Your task to perform on an android device: Find coffee shops on Maps Image 0: 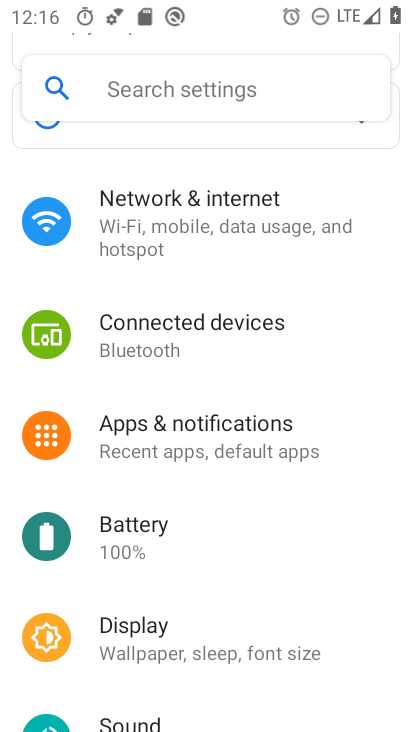
Step 0: press home button
Your task to perform on an android device: Find coffee shops on Maps Image 1: 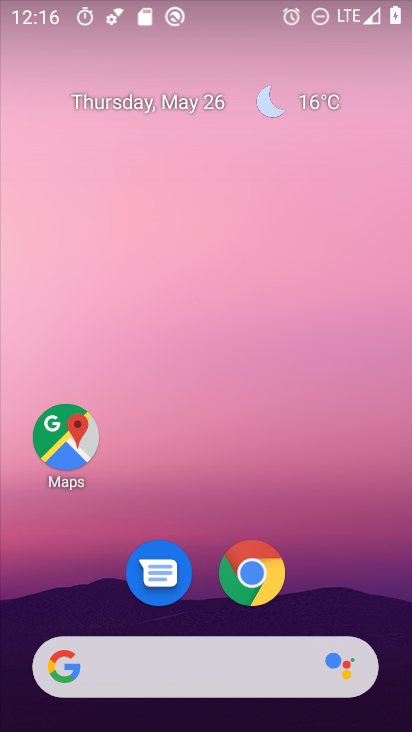
Step 1: click (70, 440)
Your task to perform on an android device: Find coffee shops on Maps Image 2: 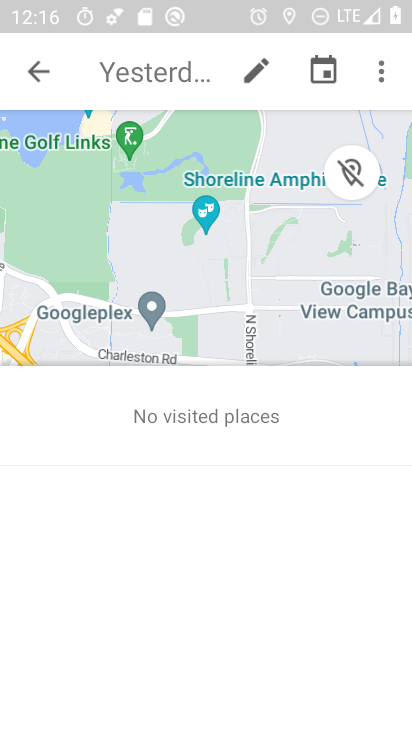
Step 2: click (35, 73)
Your task to perform on an android device: Find coffee shops on Maps Image 3: 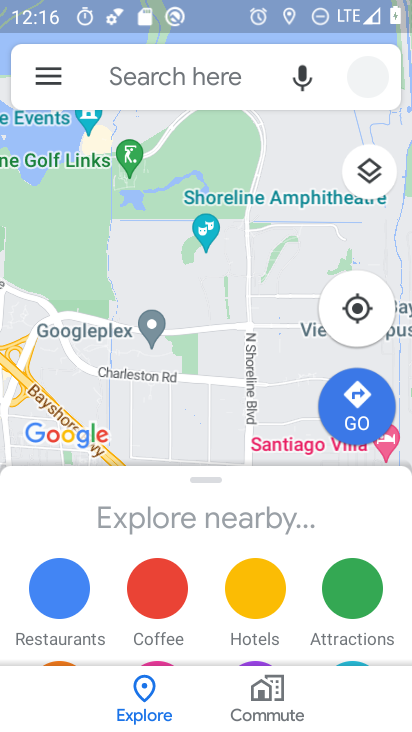
Step 3: click (128, 78)
Your task to perform on an android device: Find coffee shops on Maps Image 4: 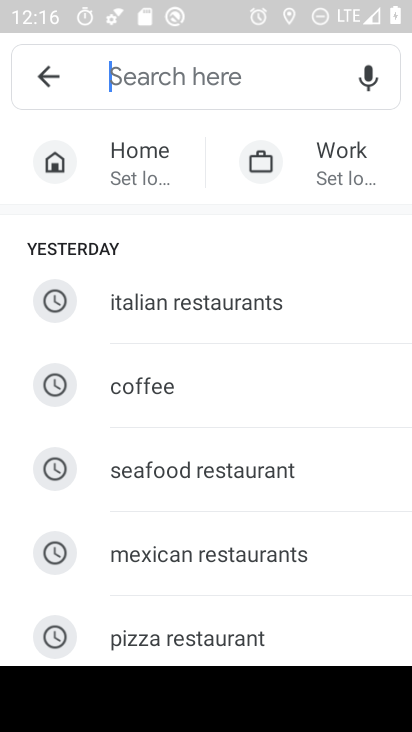
Step 4: type "coffee shops"
Your task to perform on an android device: Find coffee shops on Maps Image 5: 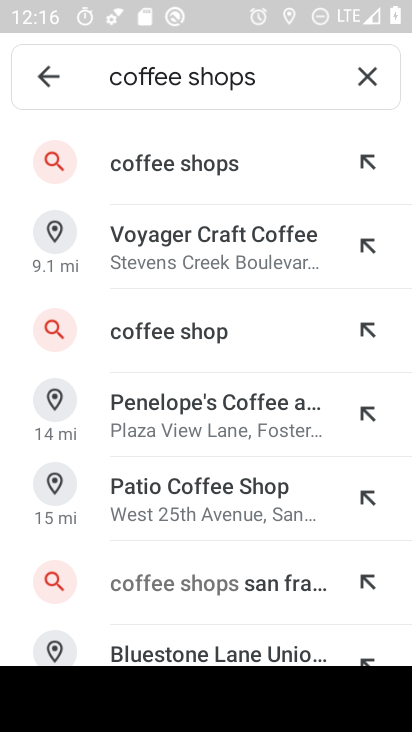
Step 5: click (207, 155)
Your task to perform on an android device: Find coffee shops on Maps Image 6: 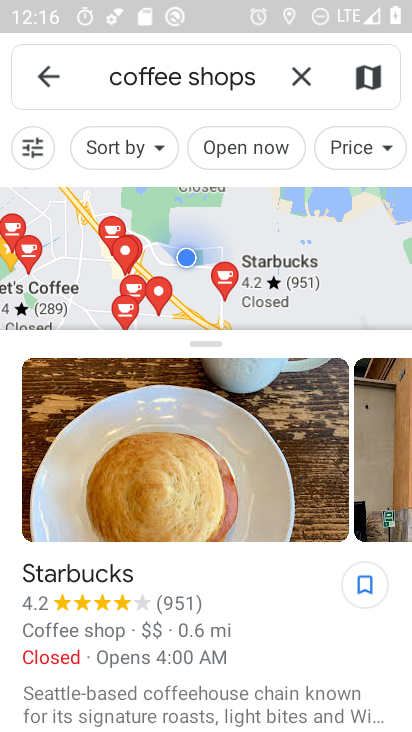
Step 6: task complete